Your task to perform on an android device: open device folders in google photos Image 0: 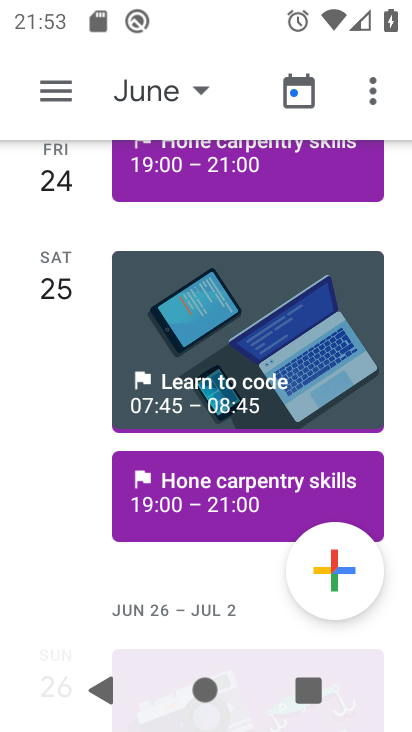
Step 0: press home button
Your task to perform on an android device: open device folders in google photos Image 1: 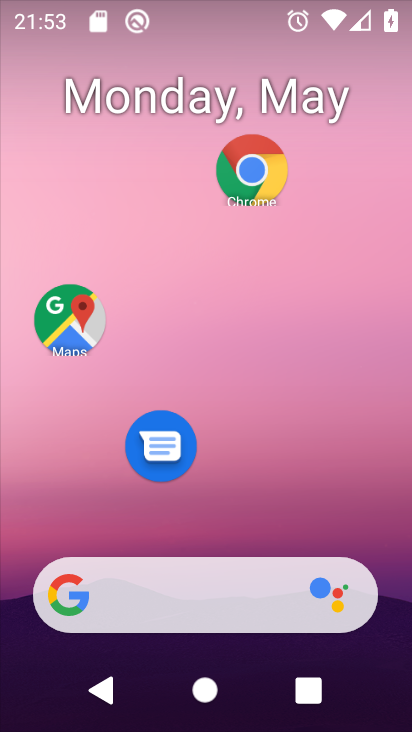
Step 1: drag from (224, 529) to (241, 48)
Your task to perform on an android device: open device folders in google photos Image 2: 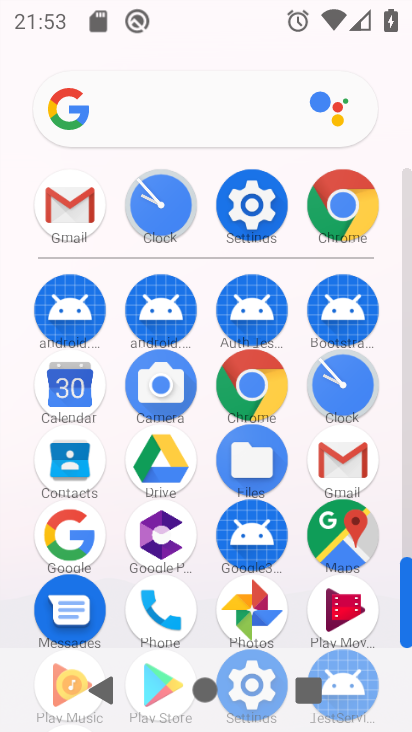
Step 2: click (246, 603)
Your task to perform on an android device: open device folders in google photos Image 3: 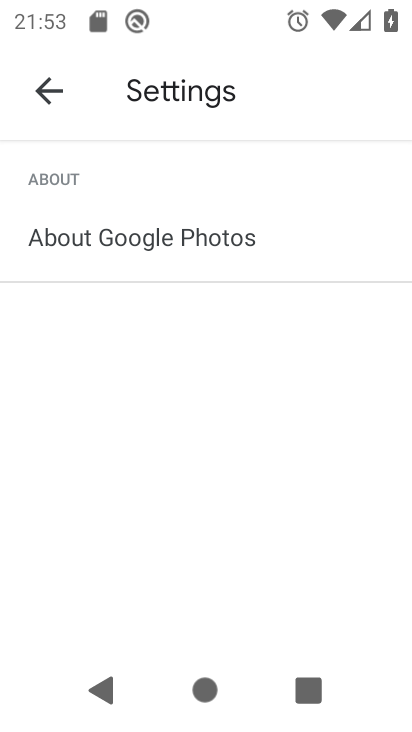
Step 3: click (43, 86)
Your task to perform on an android device: open device folders in google photos Image 4: 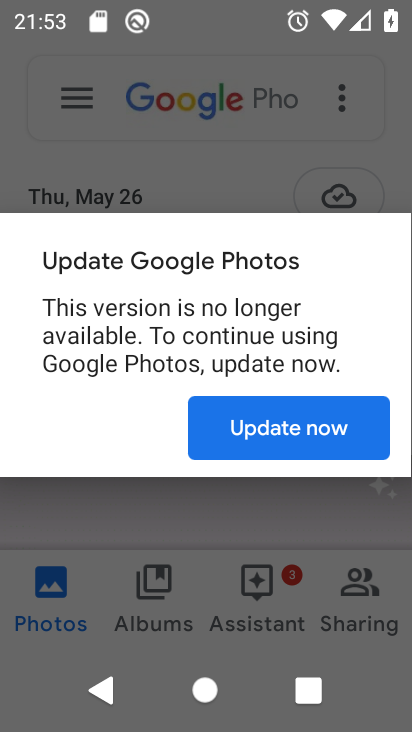
Step 4: click (299, 435)
Your task to perform on an android device: open device folders in google photos Image 5: 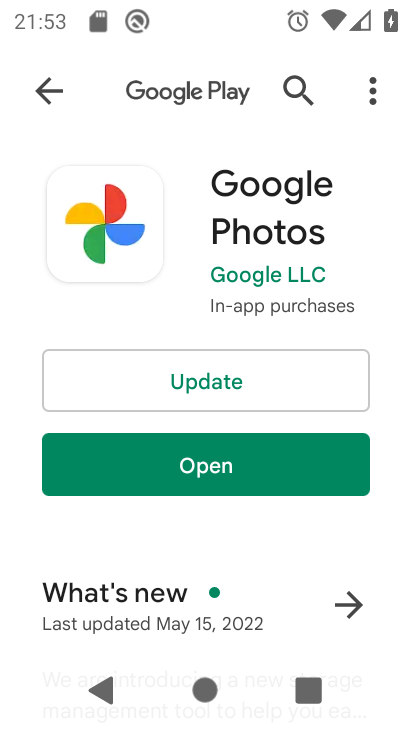
Step 5: click (207, 381)
Your task to perform on an android device: open device folders in google photos Image 6: 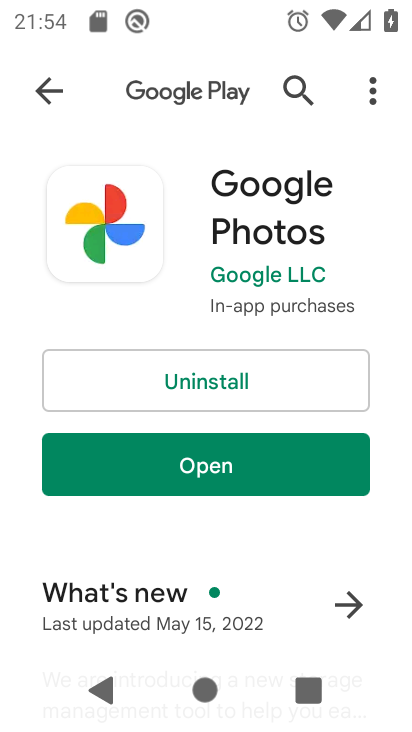
Step 6: click (207, 470)
Your task to perform on an android device: open device folders in google photos Image 7: 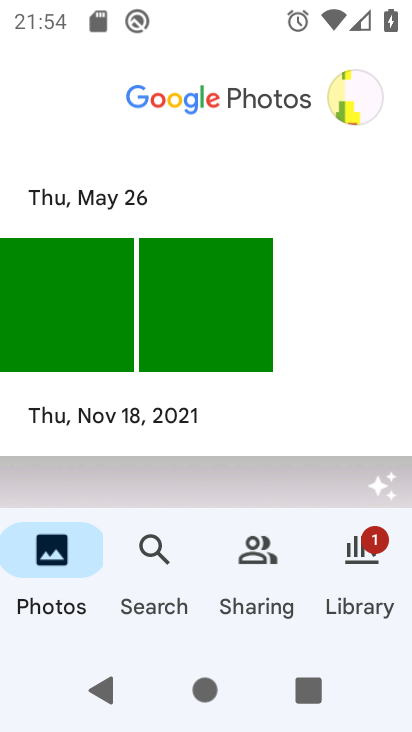
Step 7: click (155, 524)
Your task to perform on an android device: open device folders in google photos Image 8: 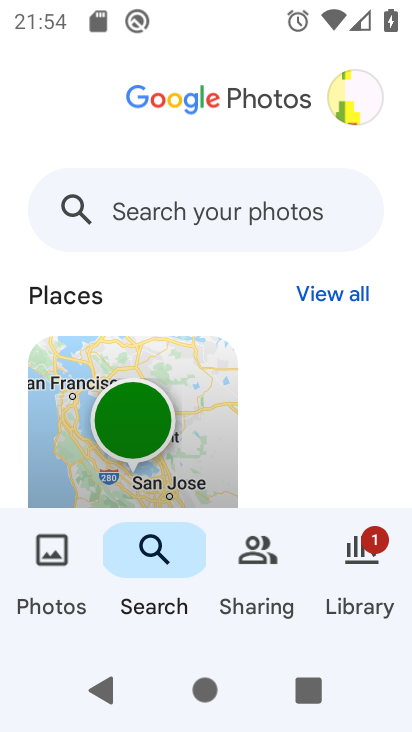
Step 8: click (145, 200)
Your task to perform on an android device: open device folders in google photos Image 9: 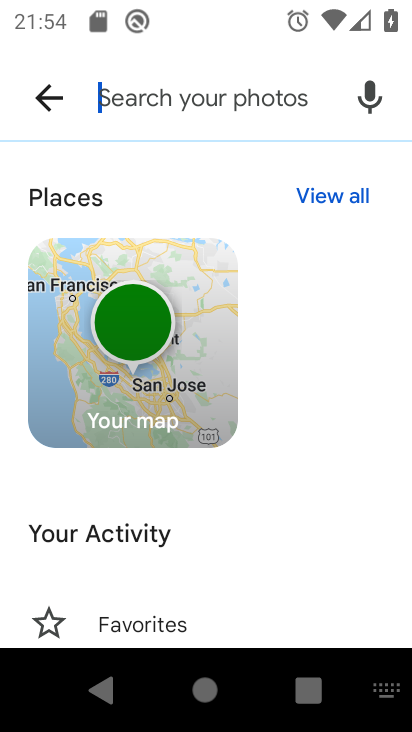
Step 9: type "device"
Your task to perform on an android device: open device folders in google photos Image 10: 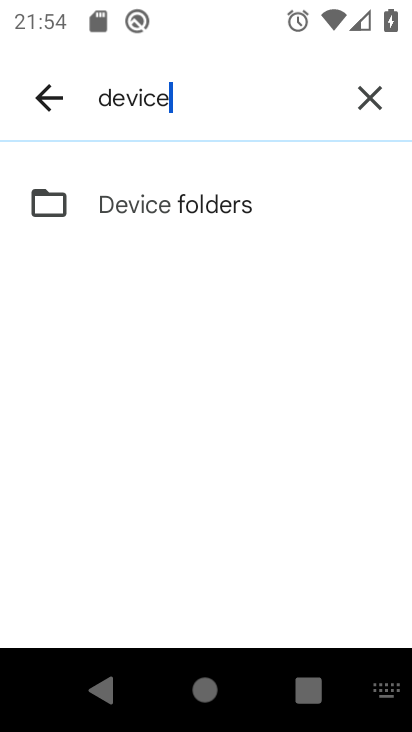
Step 10: click (165, 194)
Your task to perform on an android device: open device folders in google photos Image 11: 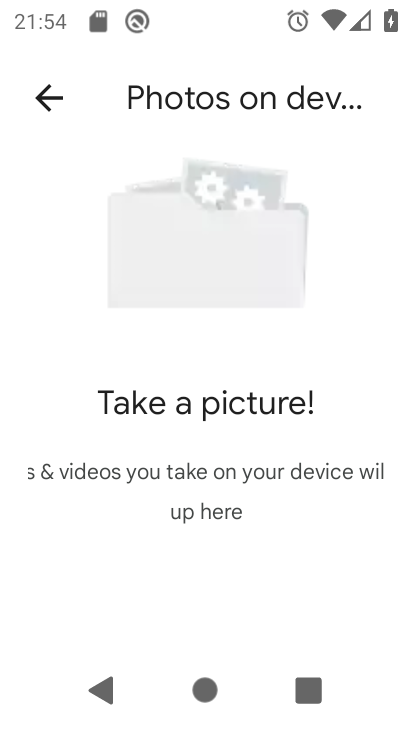
Step 11: task complete